Your task to perform on an android device: turn off translation in the chrome app Image 0: 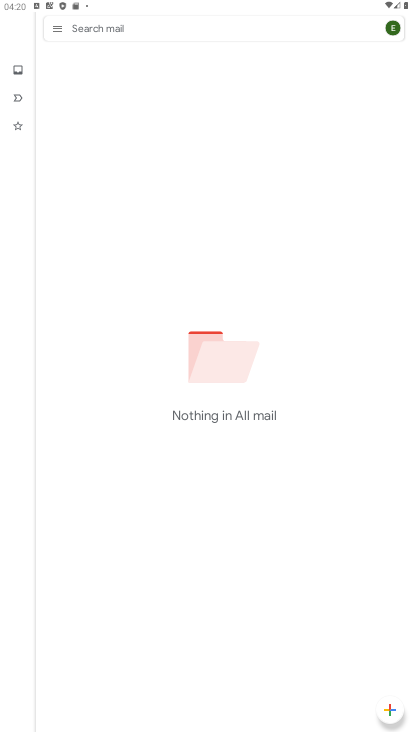
Step 0: press home button
Your task to perform on an android device: turn off translation in the chrome app Image 1: 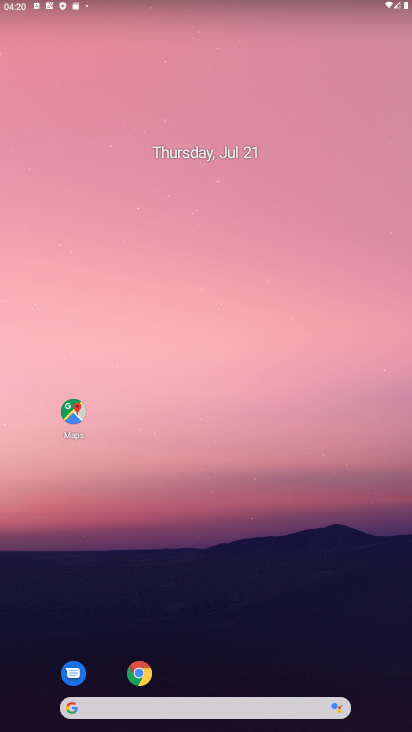
Step 1: click (137, 675)
Your task to perform on an android device: turn off translation in the chrome app Image 2: 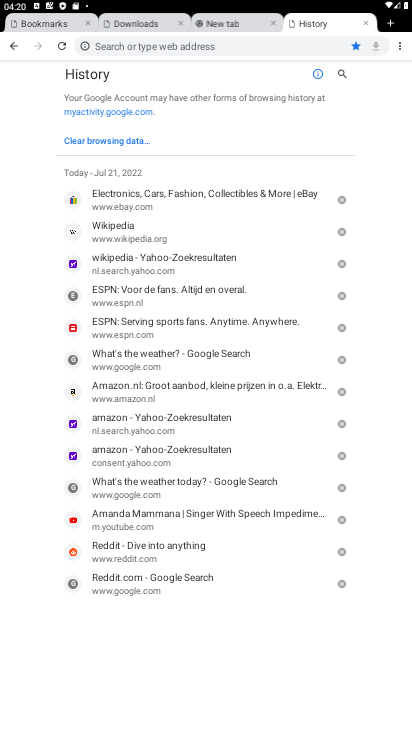
Step 2: click (398, 50)
Your task to perform on an android device: turn off translation in the chrome app Image 3: 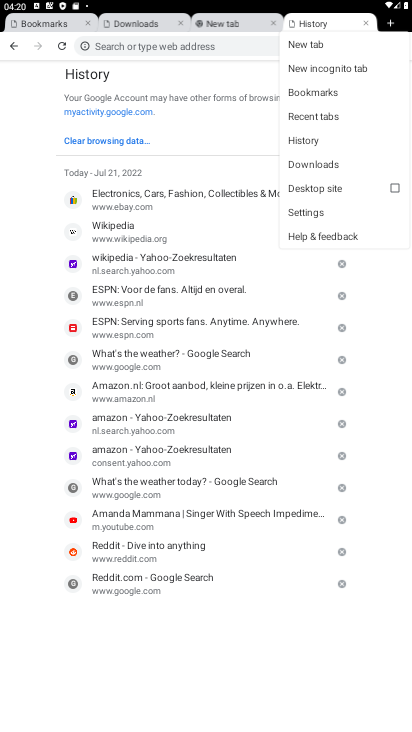
Step 3: click (294, 208)
Your task to perform on an android device: turn off translation in the chrome app Image 4: 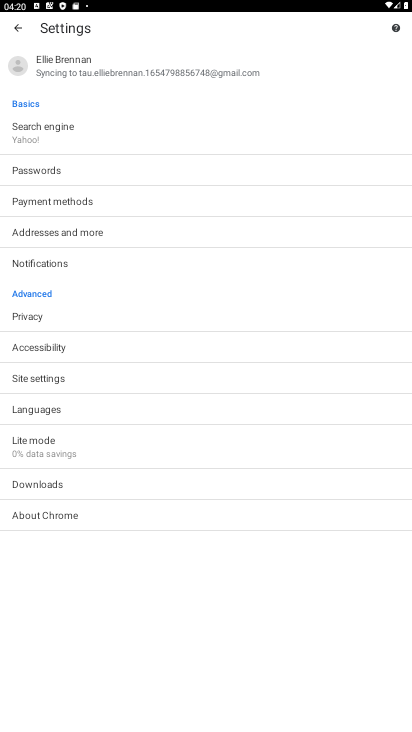
Step 4: click (47, 409)
Your task to perform on an android device: turn off translation in the chrome app Image 5: 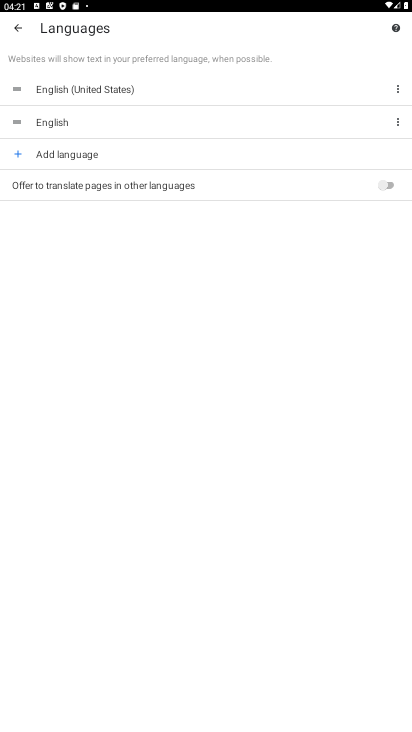
Step 5: task complete